Your task to perform on an android device: Open wifi settings Image 0: 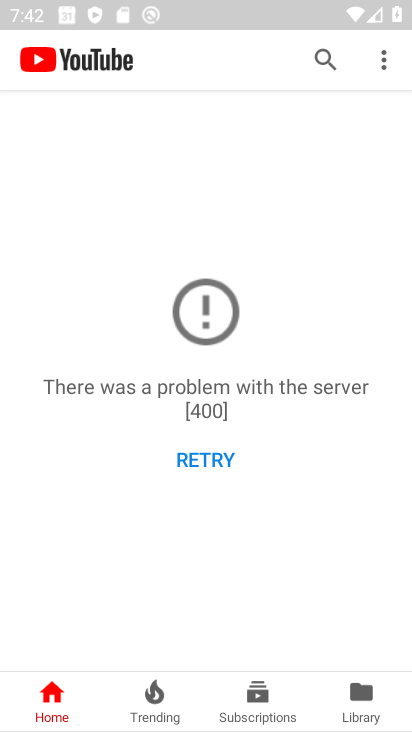
Step 0: press home button
Your task to perform on an android device: Open wifi settings Image 1: 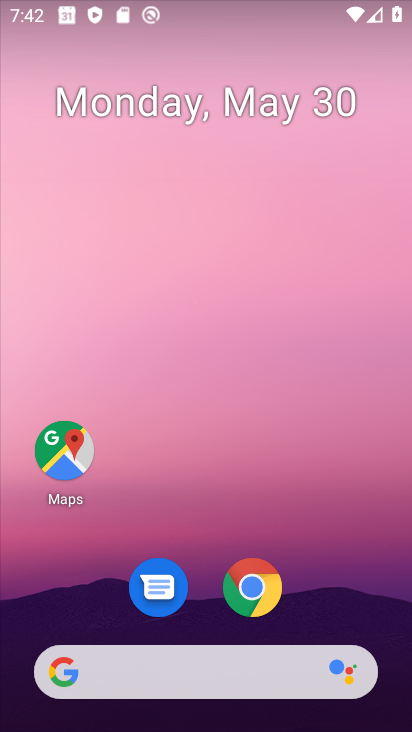
Step 1: drag from (327, 578) to (221, 6)
Your task to perform on an android device: Open wifi settings Image 2: 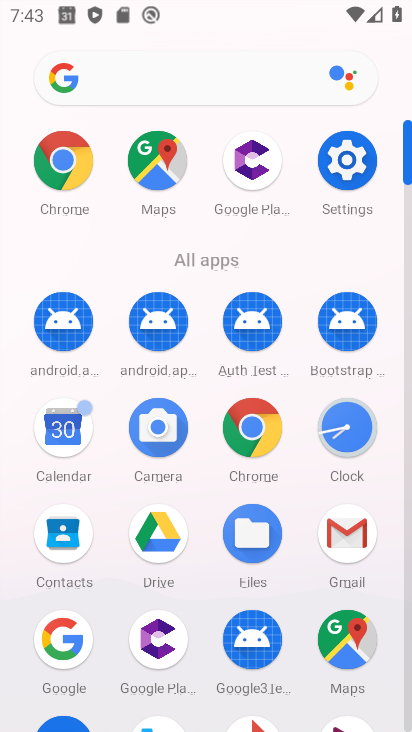
Step 2: click (348, 156)
Your task to perform on an android device: Open wifi settings Image 3: 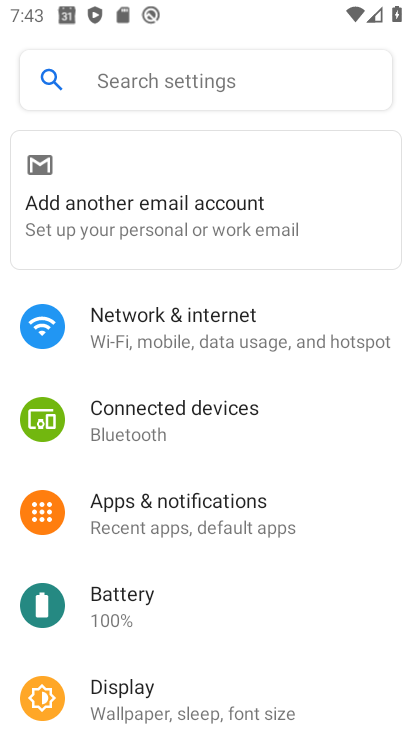
Step 3: click (212, 337)
Your task to perform on an android device: Open wifi settings Image 4: 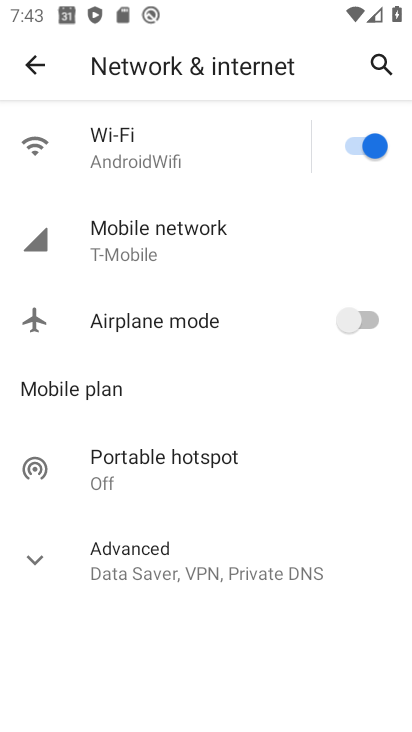
Step 4: click (137, 141)
Your task to perform on an android device: Open wifi settings Image 5: 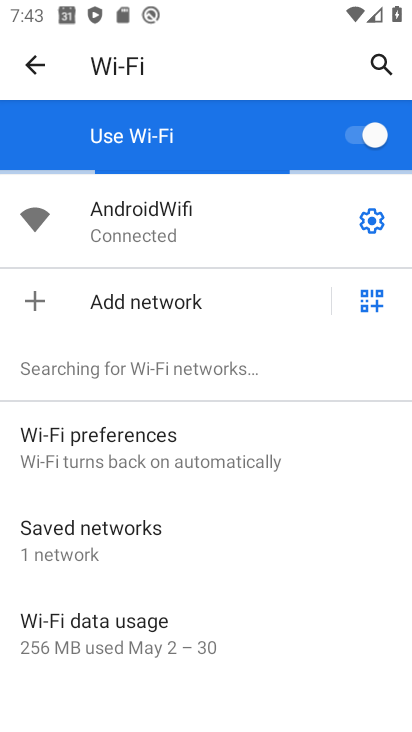
Step 5: task complete